Your task to perform on an android device: Show me productivity apps on the Play Store Image 0: 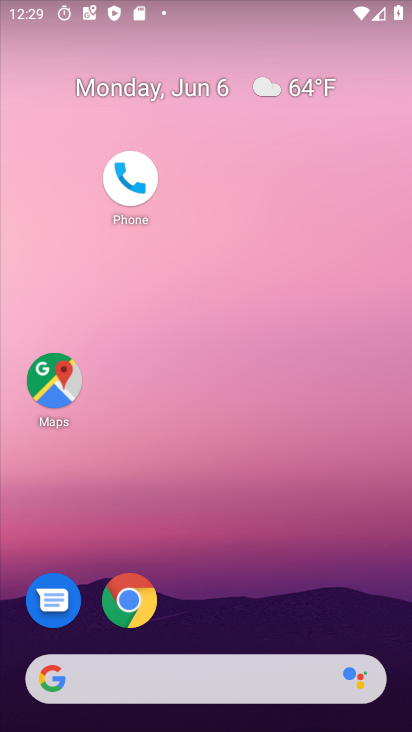
Step 0: click (226, 173)
Your task to perform on an android device: Show me productivity apps on the Play Store Image 1: 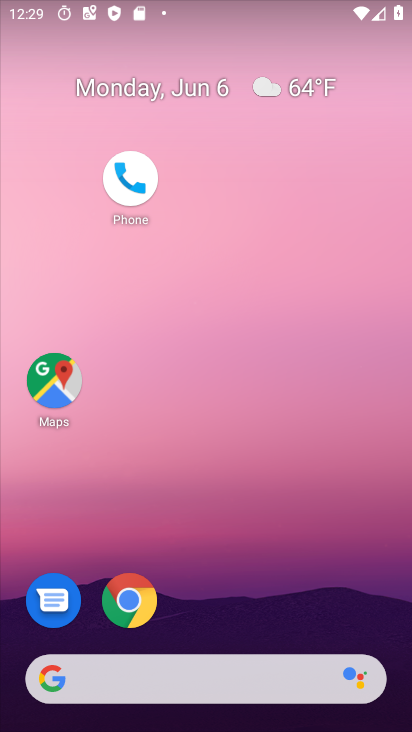
Step 1: drag from (218, 681) to (198, 170)
Your task to perform on an android device: Show me productivity apps on the Play Store Image 2: 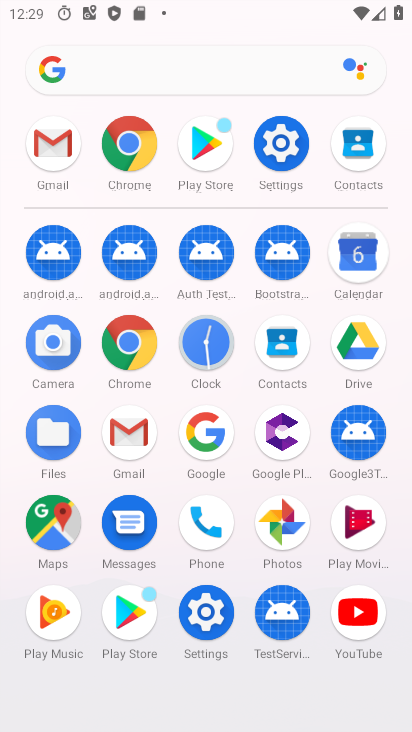
Step 2: click (127, 612)
Your task to perform on an android device: Show me productivity apps on the Play Store Image 3: 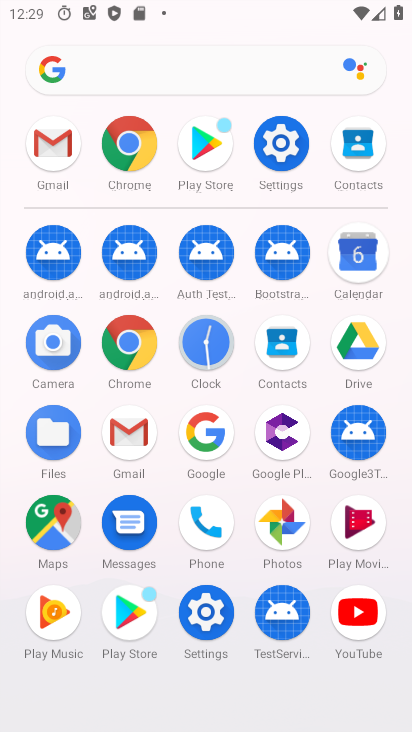
Step 3: click (127, 612)
Your task to perform on an android device: Show me productivity apps on the Play Store Image 4: 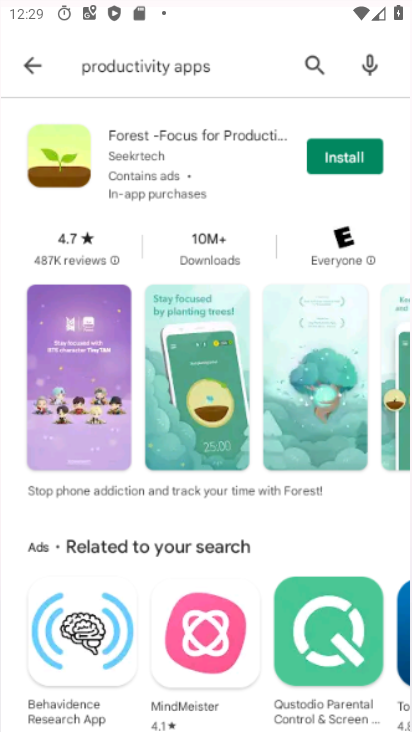
Step 4: click (127, 612)
Your task to perform on an android device: Show me productivity apps on the Play Store Image 5: 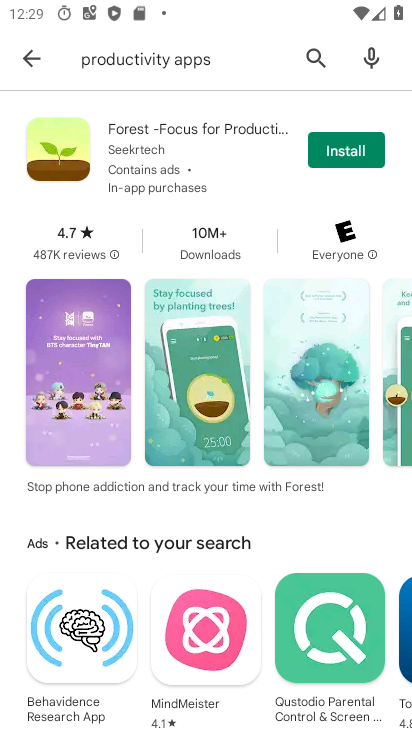
Step 5: click (128, 612)
Your task to perform on an android device: Show me productivity apps on the Play Store Image 6: 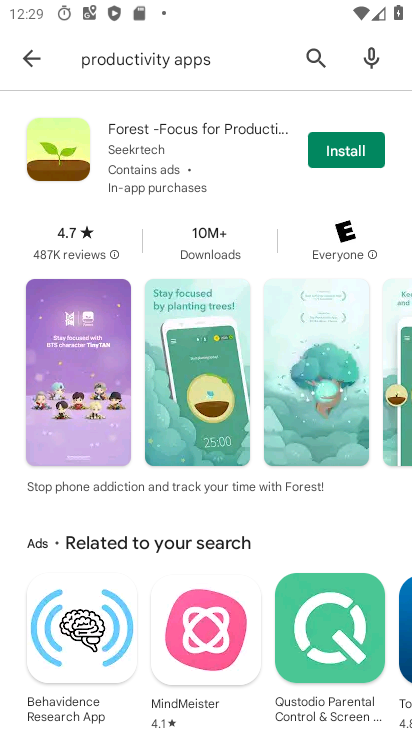
Step 6: click (128, 612)
Your task to perform on an android device: Show me productivity apps on the Play Store Image 7: 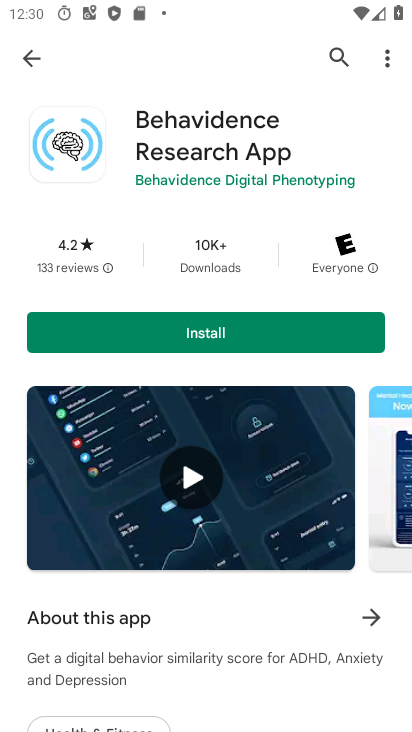
Step 7: click (23, 54)
Your task to perform on an android device: Show me productivity apps on the Play Store Image 8: 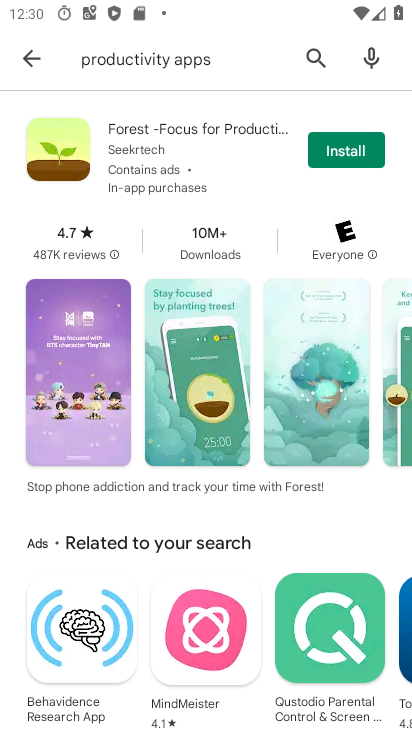
Step 8: task complete